Your task to perform on an android device: What is the recent news? Image 0: 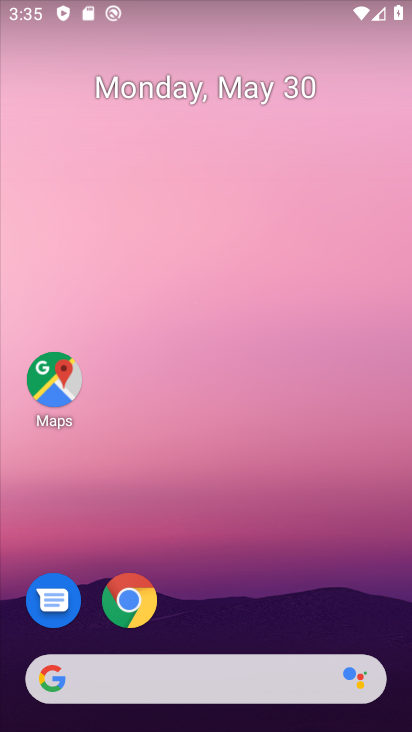
Step 0: drag from (267, 602) to (240, 195)
Your task to perform on an android device: What is the recent news? Image 1: 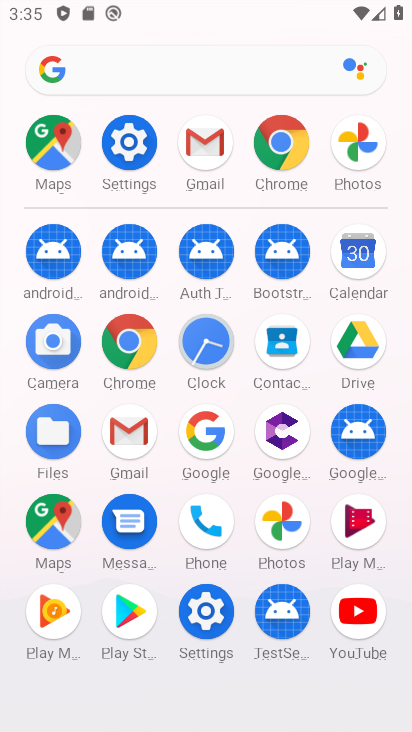
Step 1: click (255, 72)
Your task to perform on an android device: What is the recent news? Image 2: 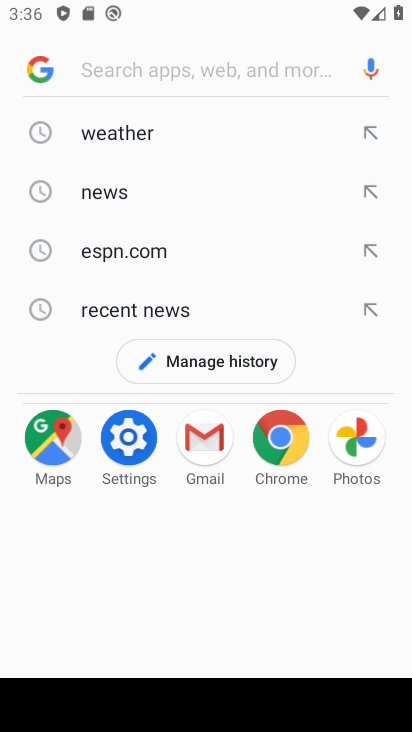
Step 2: click (171, 302)
Your task to perform on an android device: What is the recent news? Image 3: 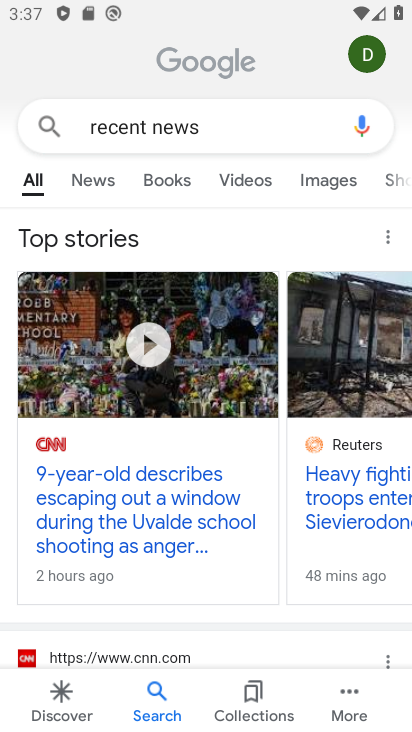
Step 3: task complete